Your task to perform on an android device: check battery use Image 0: 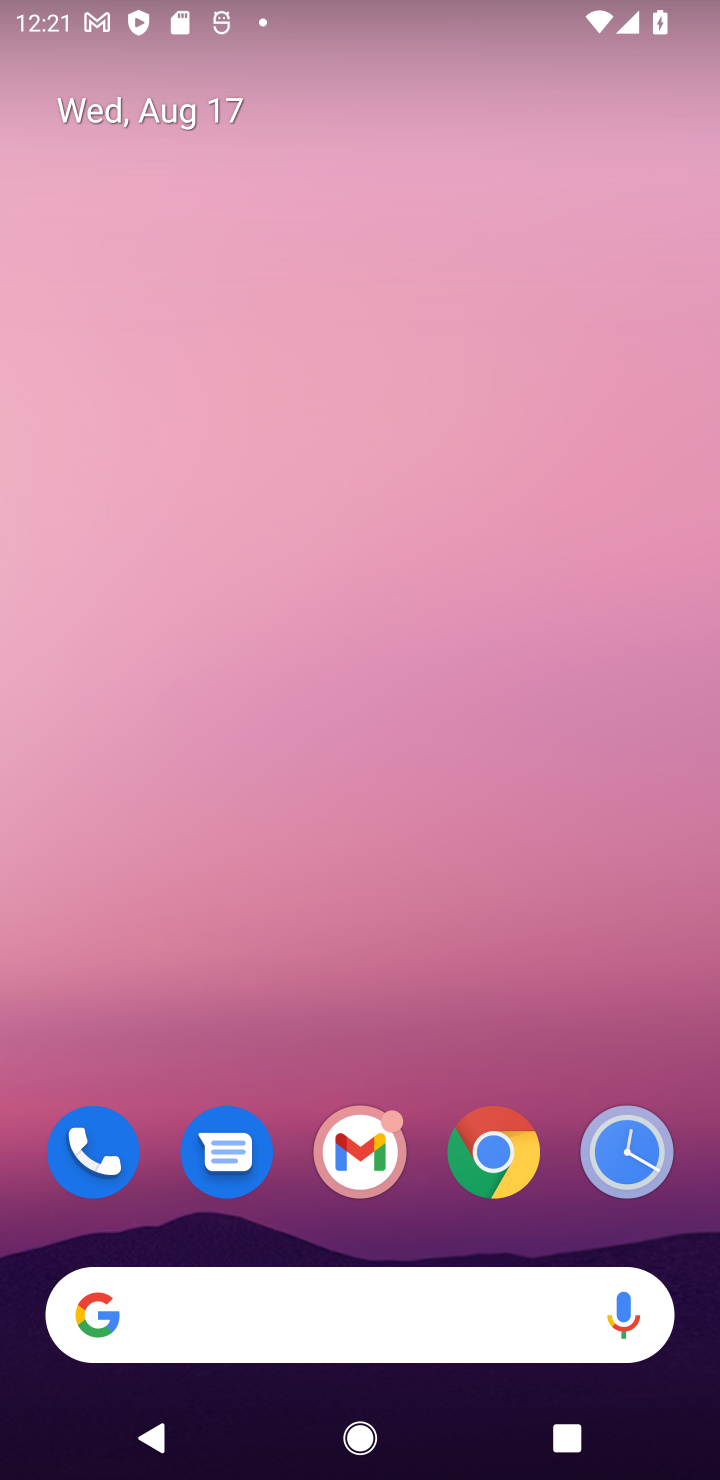
Step 0: drag from (436, 1193) to (153, 18)
Your task to perform on an android device: check battery use Image 1: 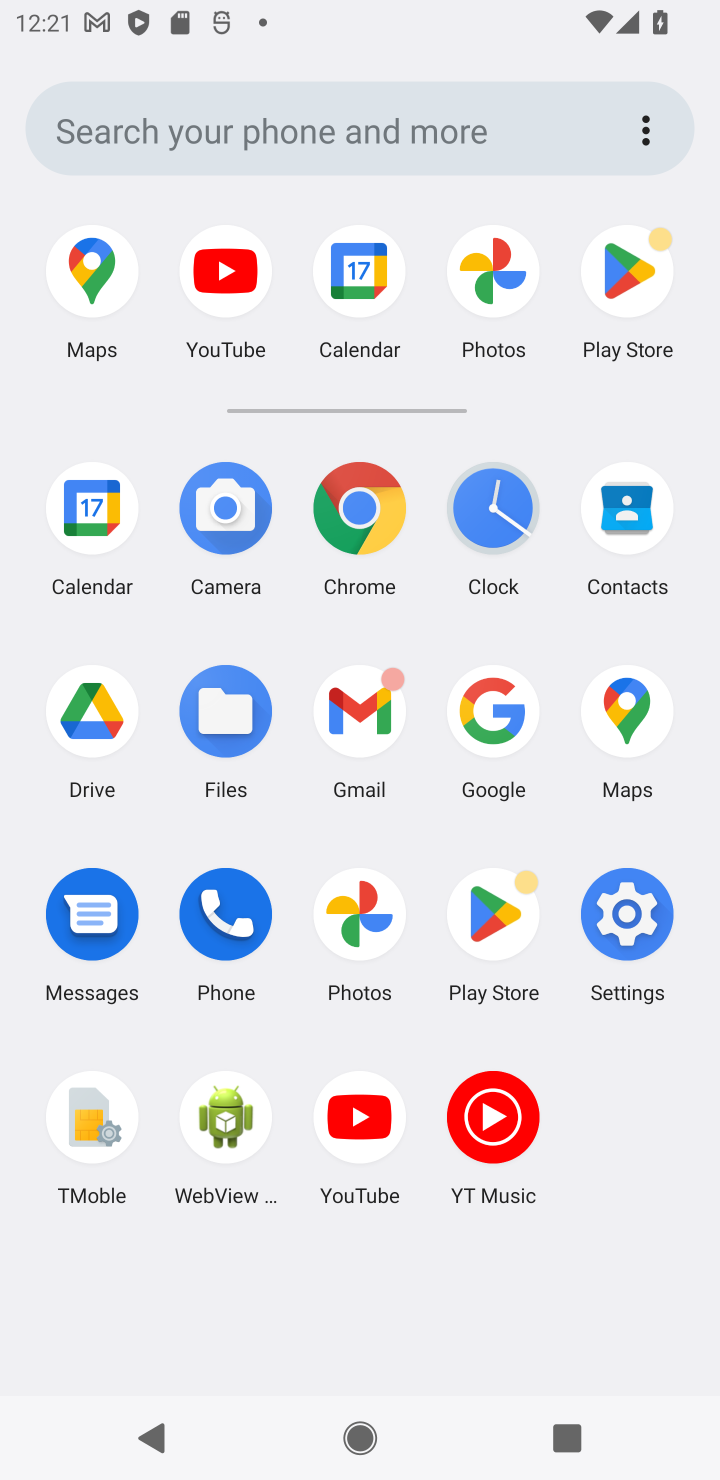
Step 1: click (629, 934)
Your task to perform on an android device: check battery use Image 2: 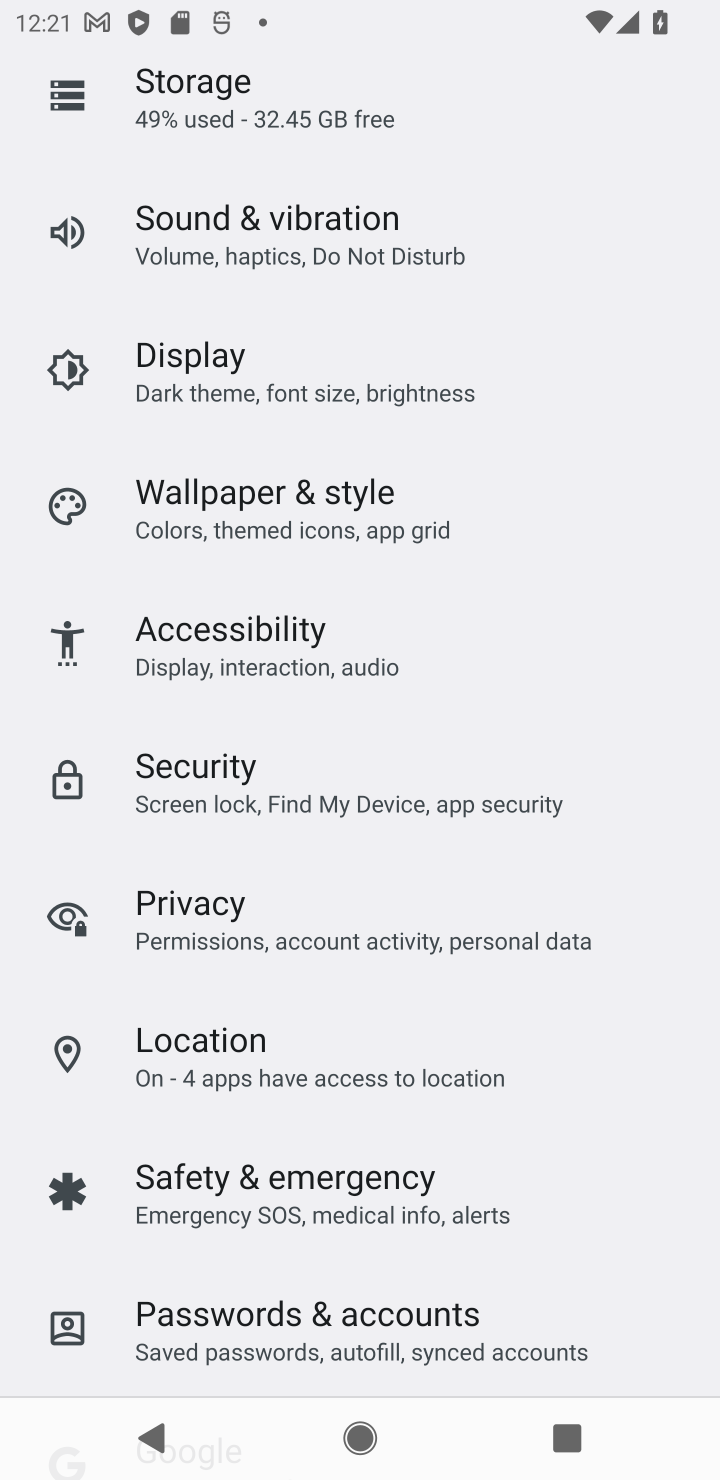
Step 2: drag from (200, 271) to (285, 1341)
Your task to perform on an android device: check battery use Image 3: 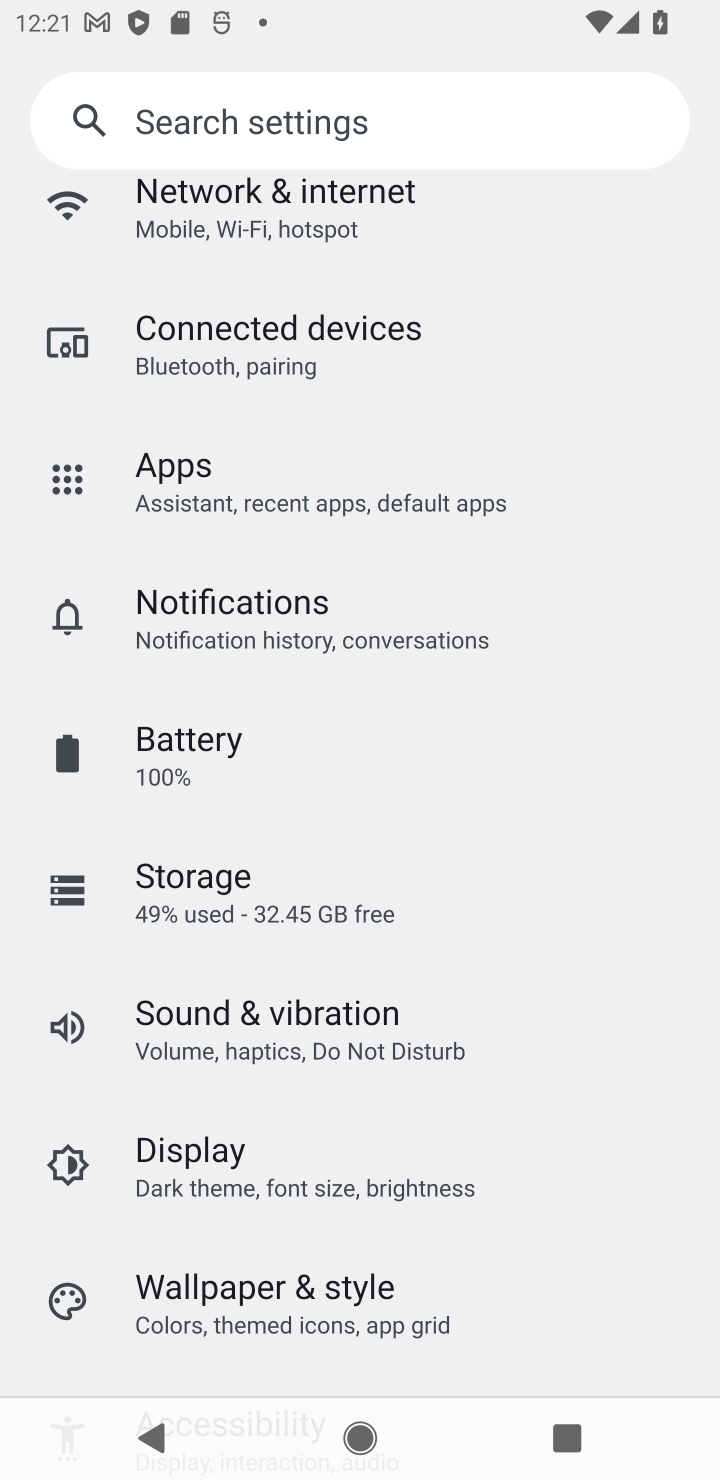
Step 3: drag from (289, 369) to (344, 813)
Your task to perform on an android device: check battery use Image 4: 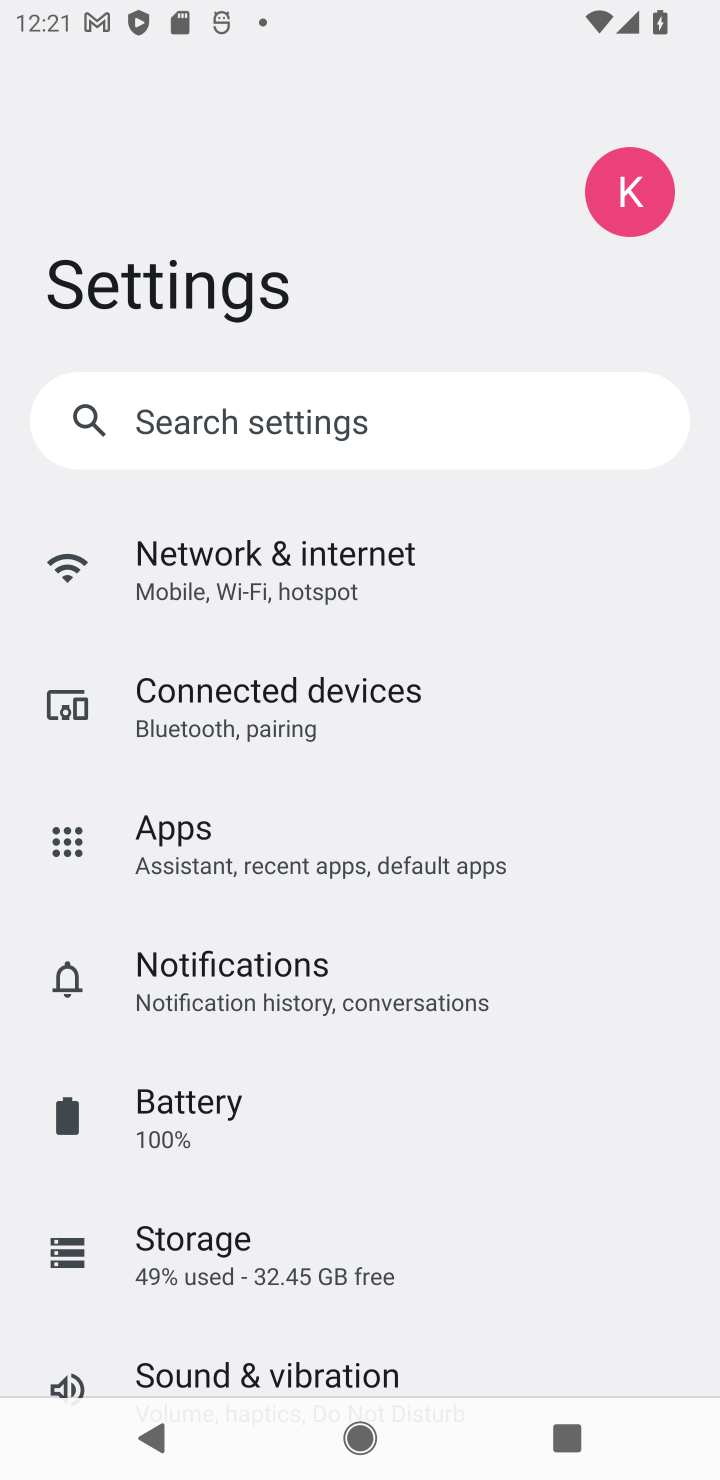
Step 4: click (200, 1128)
Your task to perform on an android device: check battery use Image 5: 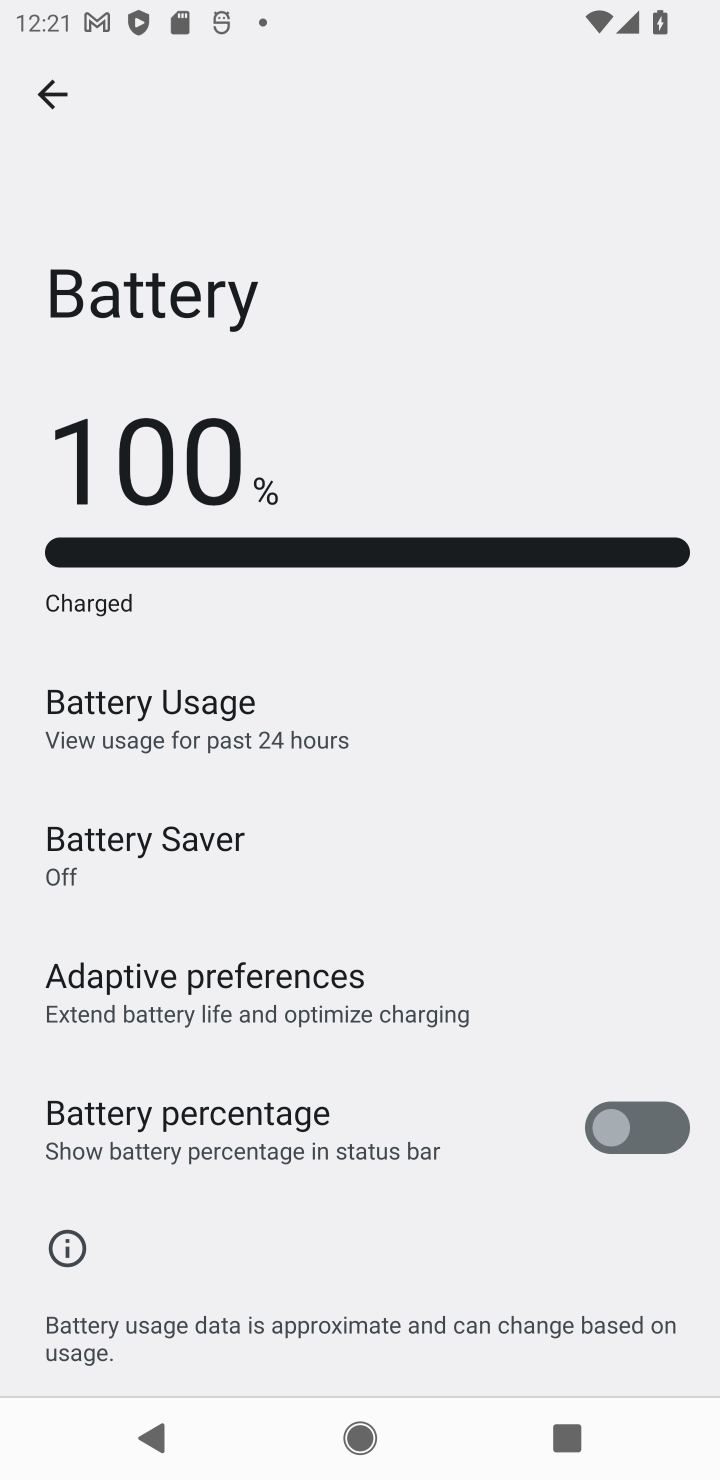
Step 5: click (217, 723)
Your task to perform on an android device: check battery use Image 6: 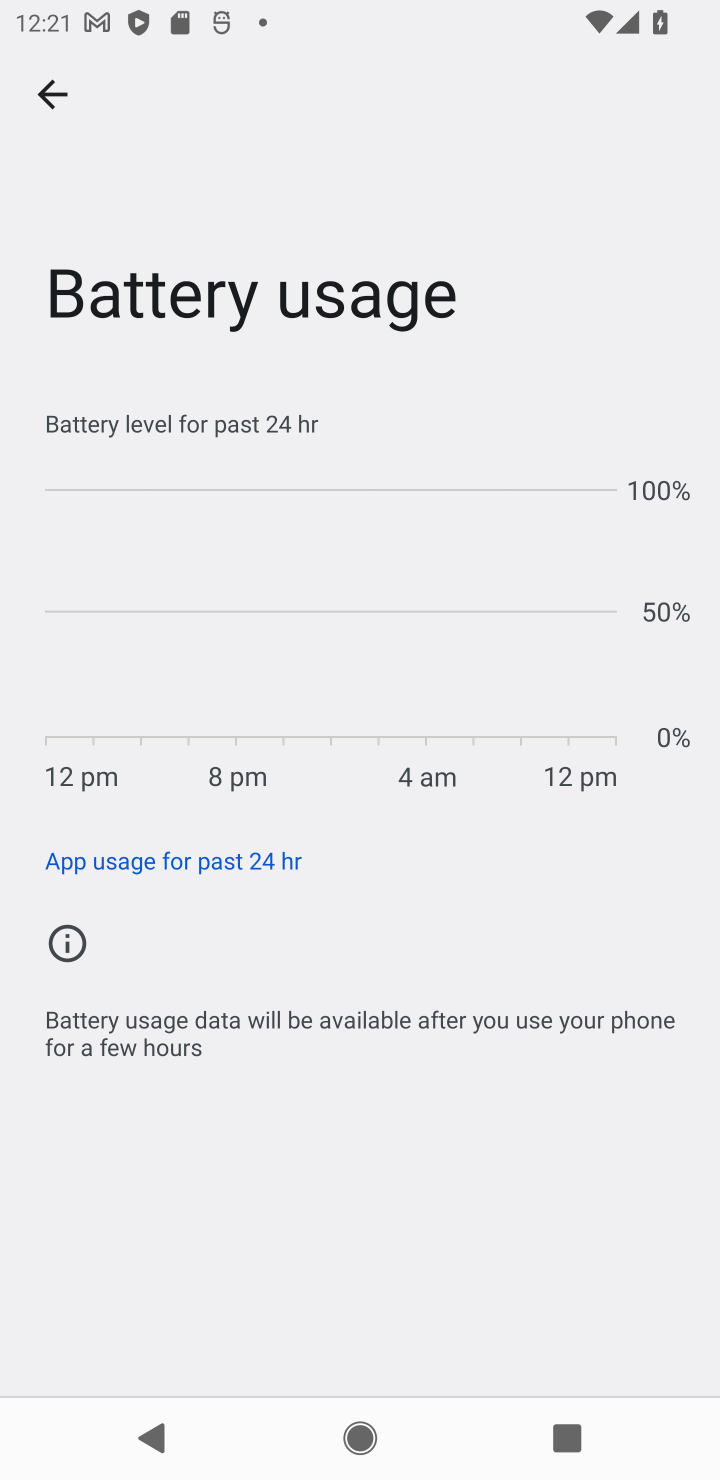
Step 6: task complete